Your task to perform on an android device: remove spam from my inbox in the gmail app Image 0: 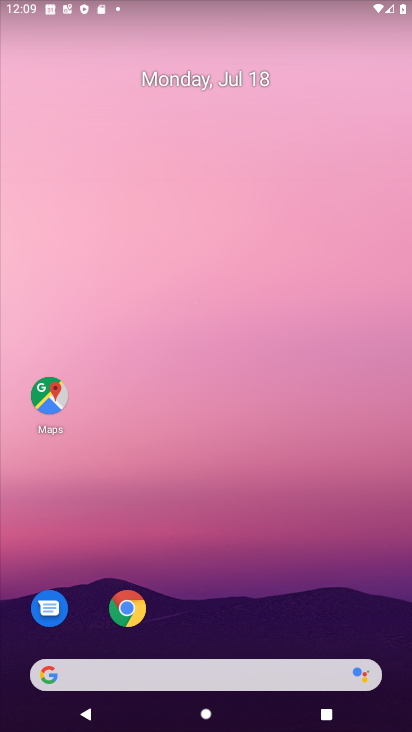
Step 0: drag from (275, 614) to (317, 75)
Your task to perform on an android device: remove spam from my inbox in the gmail app Image 1: 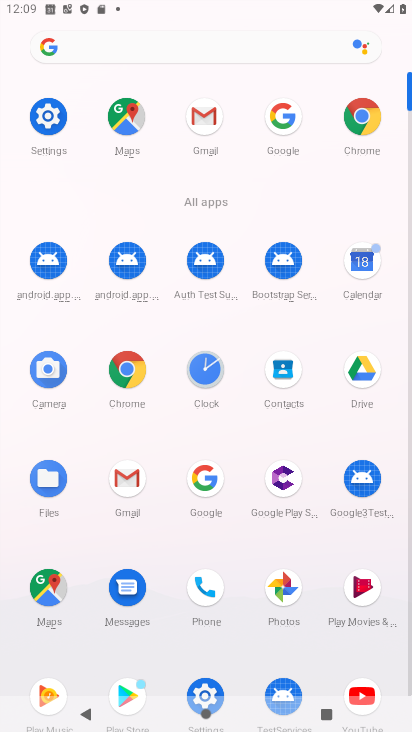
Step 1: click (214, 110)
Your task to perform on an android device: remove spam from my inbox in the gmail app Image 2: 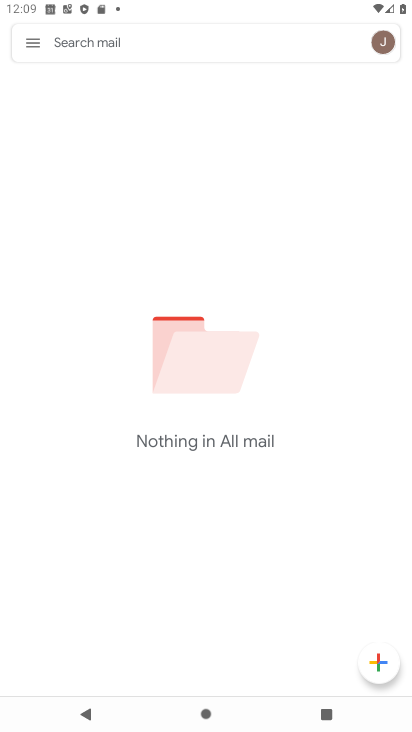
Step 2: click (23, 39)
Your task to perform on an android device: remove spam from my inbox in the gmail app Image 3: 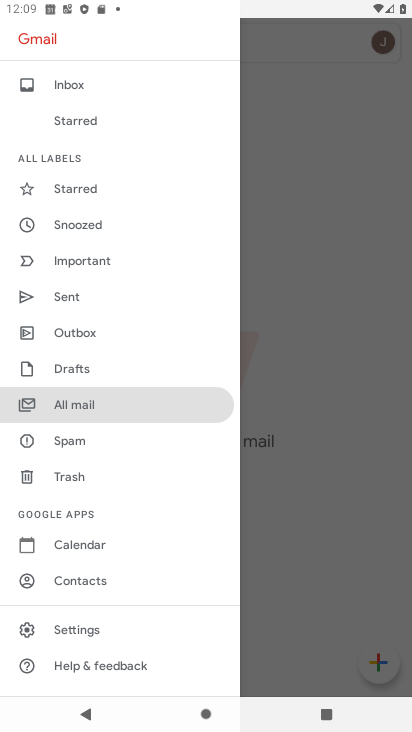
Step 3: click (89, 433)
Your task to perform on an android device: remove spam from my inbox in the gmail app Image 4: 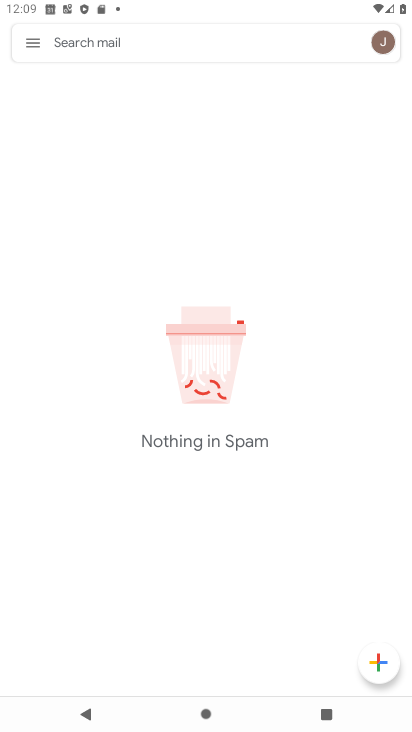
Step 4: task complete